Your task to perform on an android device: create a new album in the google photos Image 0: 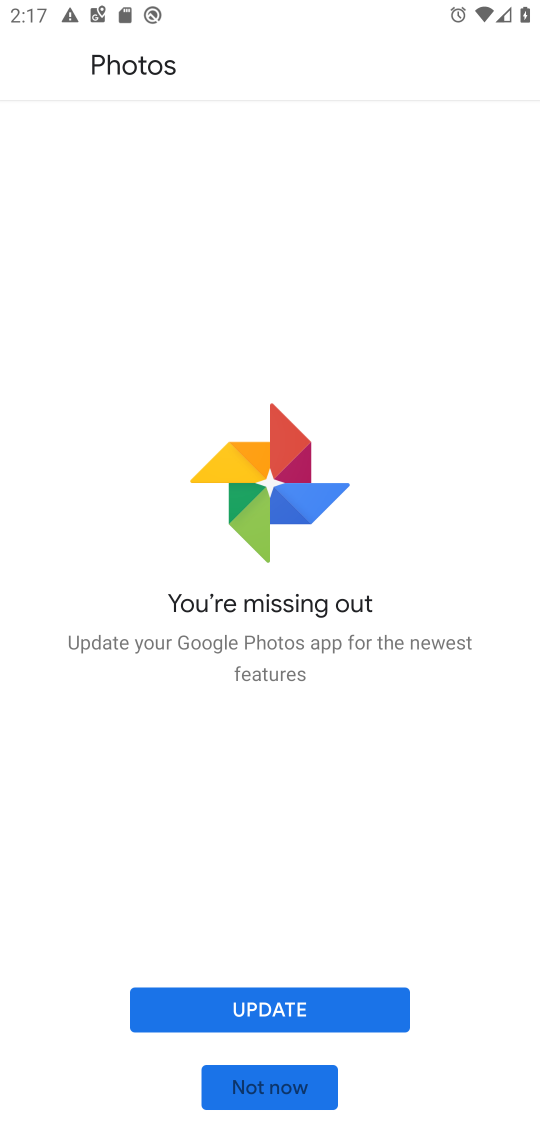
Step 0: click (295, 1094)
Your task to perform on an android device: create a new album in the google photos Image 1: 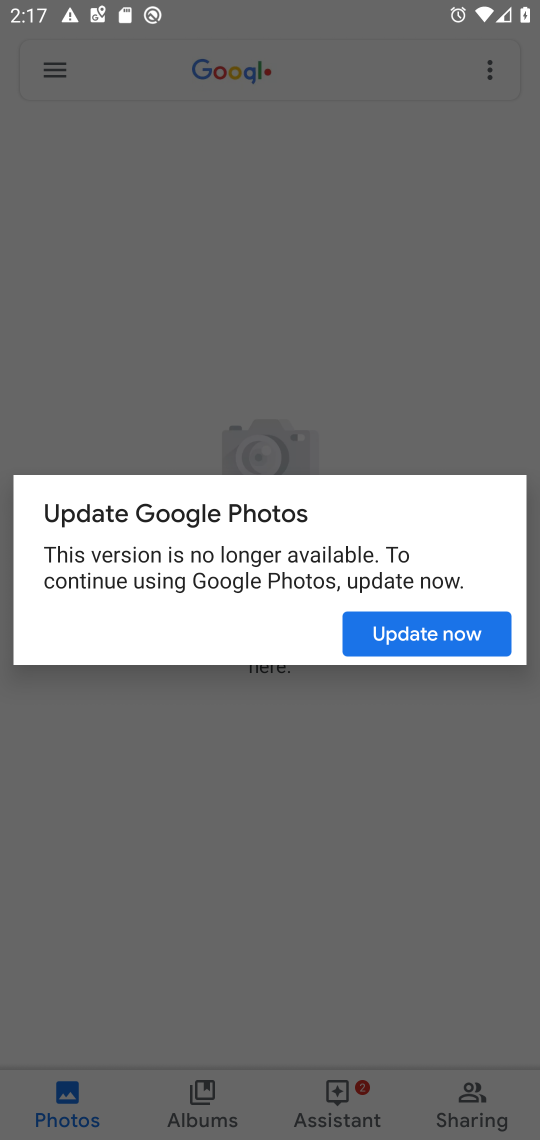
Step 1: click (399, 639)
Your task to perform on an android device: create a new album in the google photos Image 2: 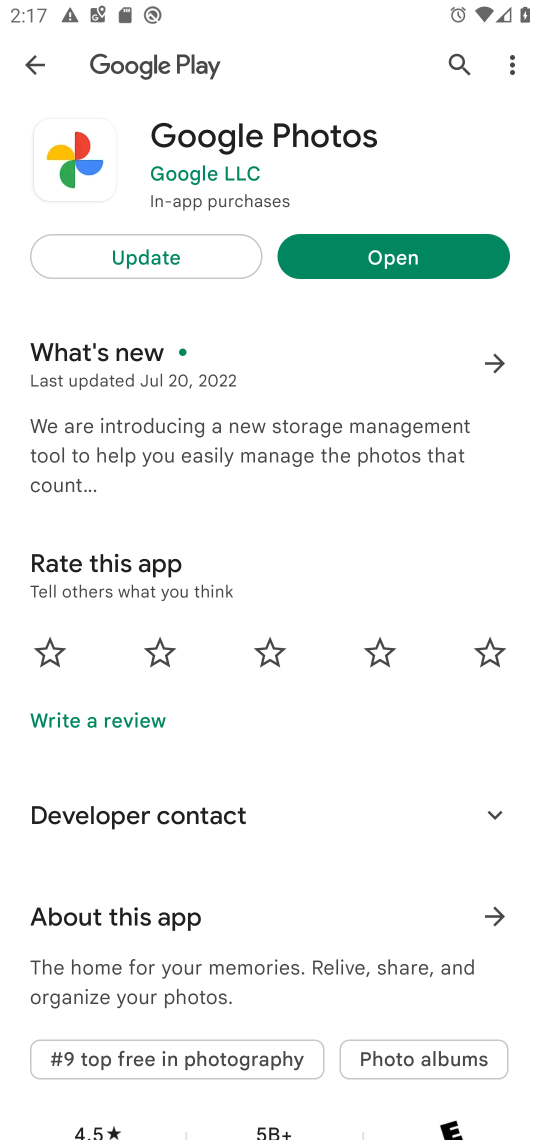
Step 2: click (351, 265)
Your task to perform on an android device: create a new album in the google photos Image 3: 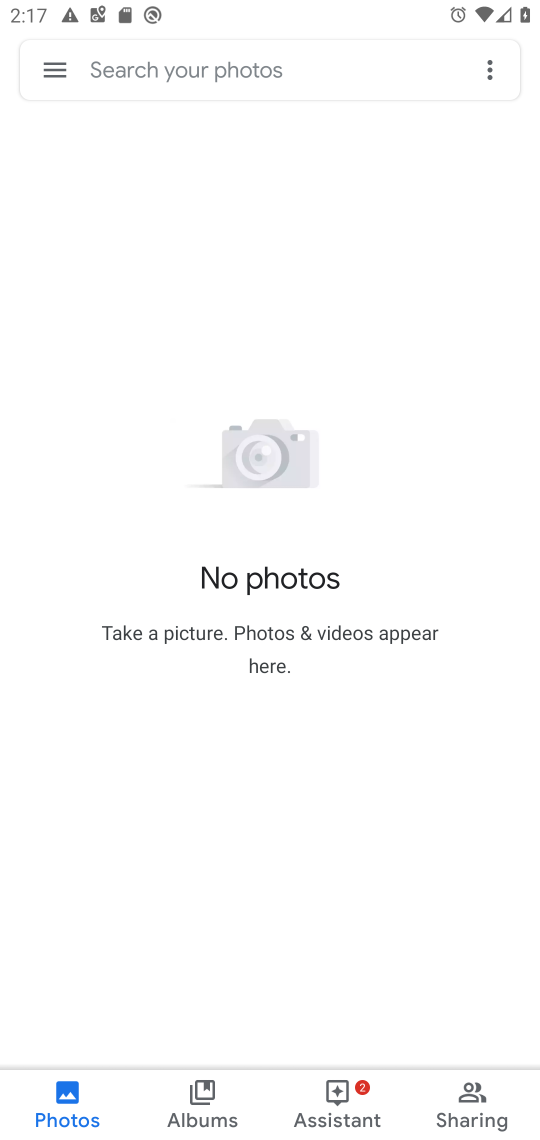
Step 3: task complete